Your task to perform on an android device: Open internet settings Image 0: 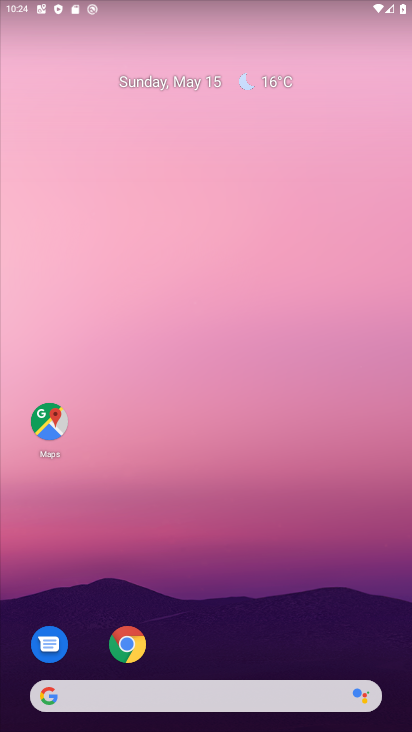
Step 0: drag from (294, 550) to (319, 0)
Your task to perform on an android device: Open internet settings Image 1: 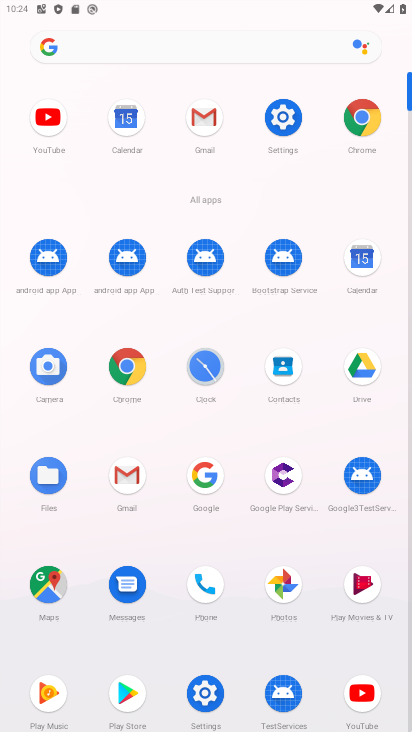
Step 1: click (279, 110)
Your task to perform on an android device: Open internet settings Image 2: 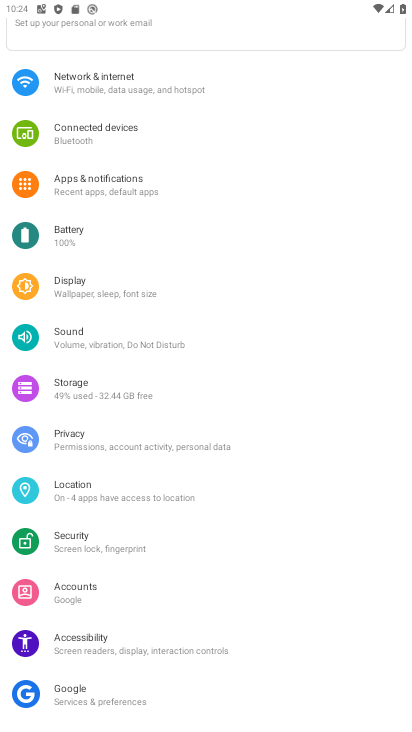
Step 2: click (117, 83)
Your task to perform on an android device: Open internet settings Image 3: 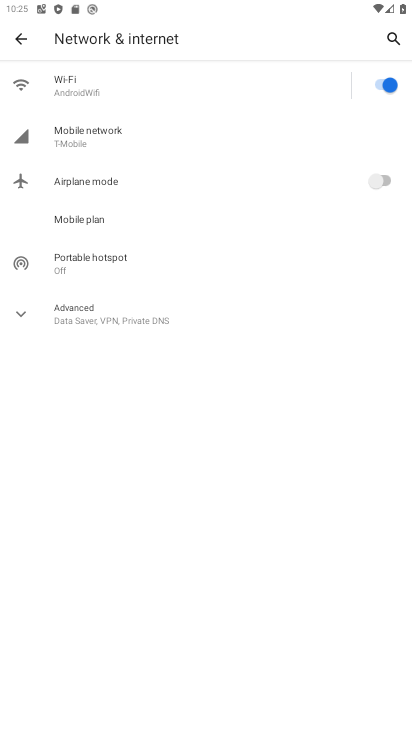
Step 3: task complete